Your task to perform on an android device: move an email to a new category in the gmail app Image 0: 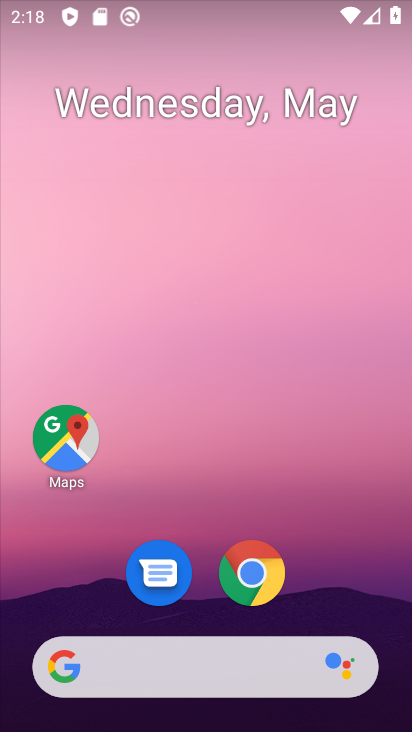
Step 0: drag from (82, 618) to (105, 499)
Your task to perform on an android device: move an email to a new category in the gmail app Image 1: 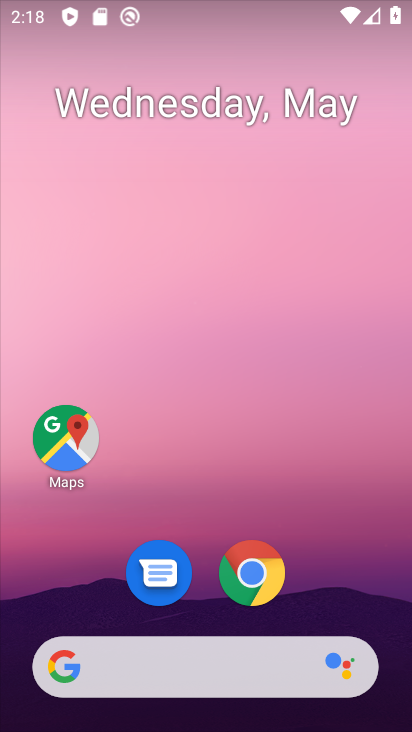
Step 1: drag from (297, 632) to (407, 36)
Your task to perform on an android device: move an email to a new category in the gmail app Image 2: 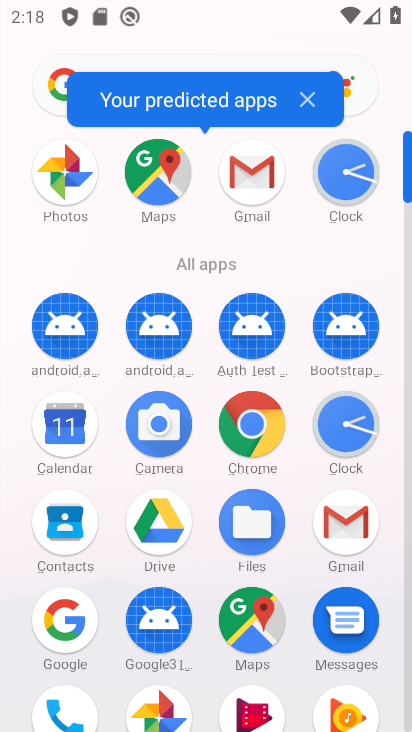
Step 2: click (341, 513)
Your task to perform on an android device: move an email to a new category in the gmail app Image 3: 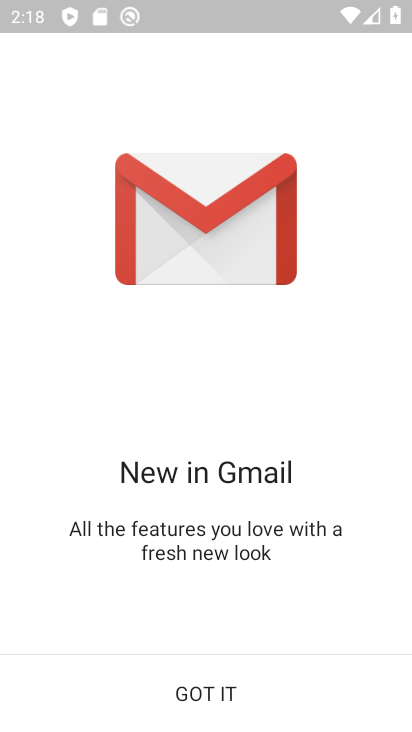
Step 3: click (227, 702)
Your task to perform on an android device: move an email to a new category in the gmail app Image 4: 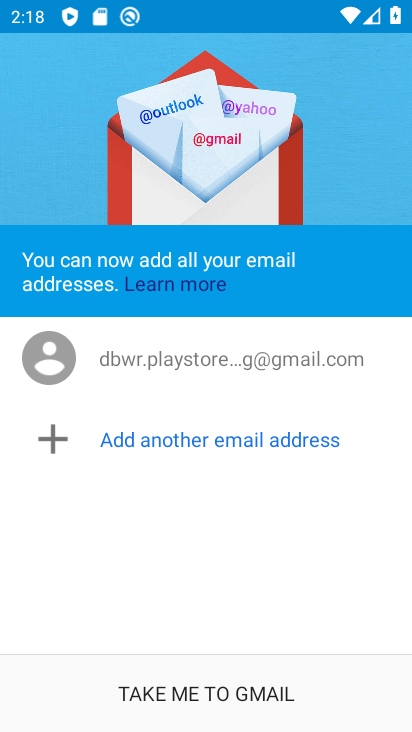
Step 4: click (268, 691)
Your task to perform on an android device: move an email to a new category in the gmail app Image 5: 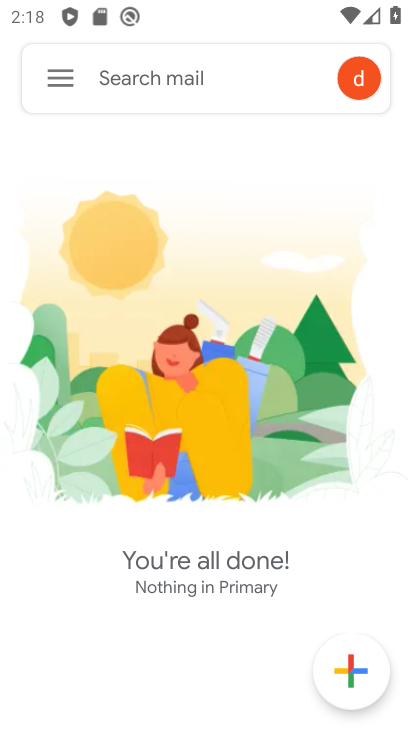
Step 5: click (83, 81)
Your task to perform on an android device: move an email to a new category in the gmail app Image 6: 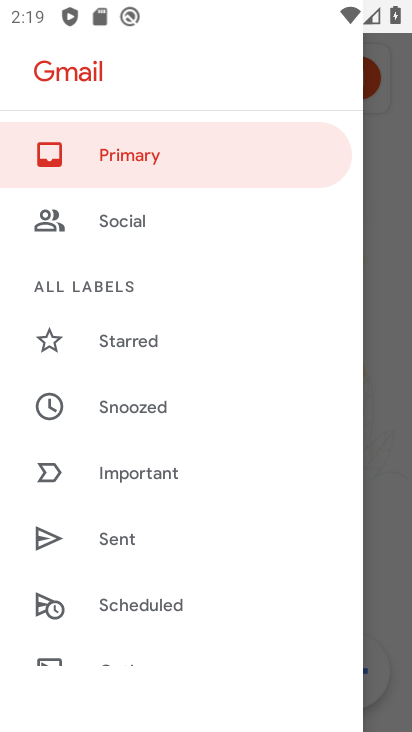
Step 6: drag from (145, 644) to (213, 325)
Your task to perform on an android device: move an email to a new category in the gmail app Image 7: 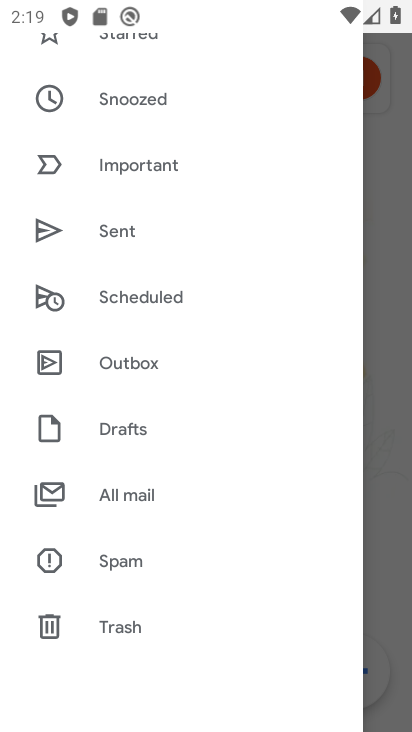
Step 7: click (172, 495)
Your task to perform on an android device: move an email to a new category in the gmail app Image 8: 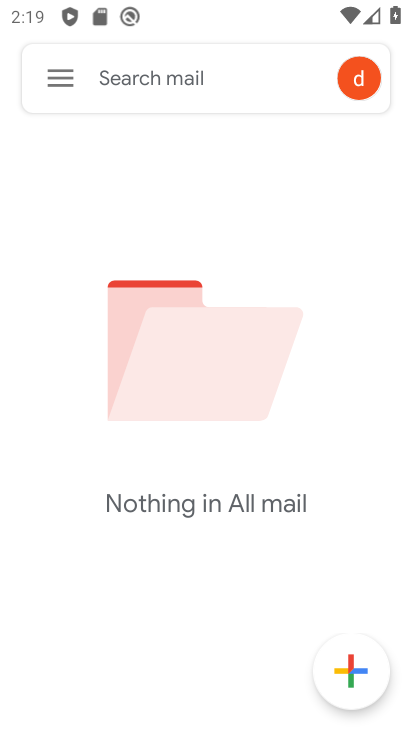
Step 8: task complete